Your task to perform on an android device: turn off data saver in the chrome app Image 0: 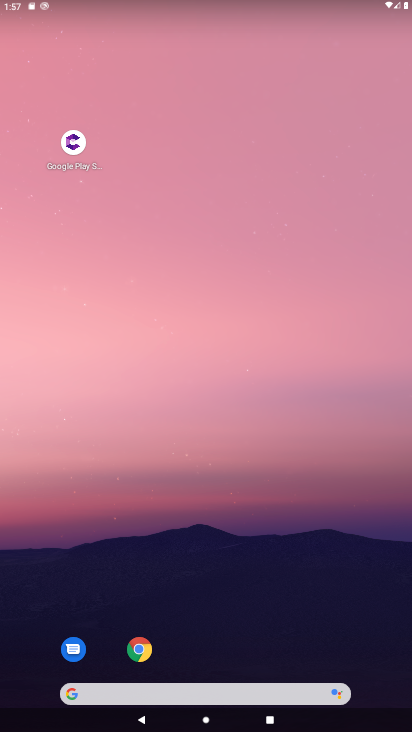
Step 0: drag from (301, 731) to (315, 63)
Your task to perform on an android device: turn off data saver in the chrome app Image 1: 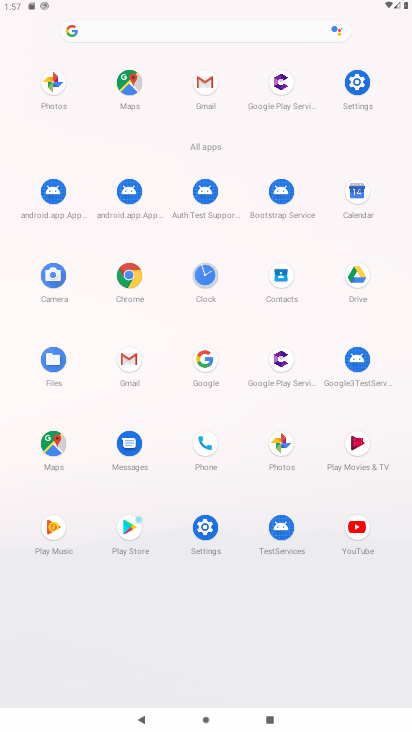
Step 1: click (141, 281)
Your task to perform on an android device: turn off data saver in the chrome app Image 2: 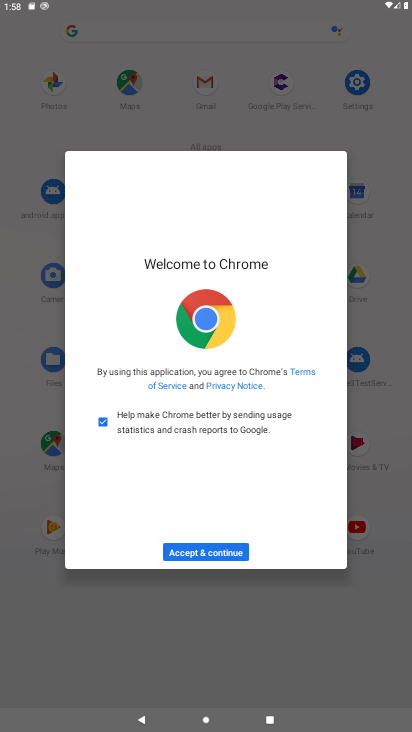
Step 2: click (240, 549)
Your task to perform on an android device: turn off data saver in the chrome app Image 3: 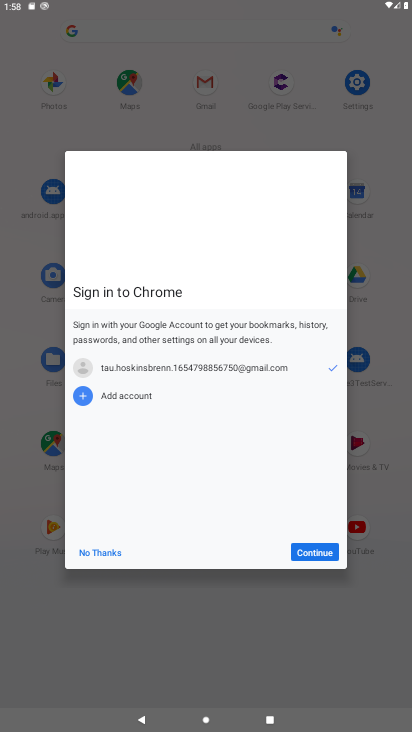
Step 3: click (312, 552)
Your task to perform on an android device: turn off data saver in the chrome app Image 4: 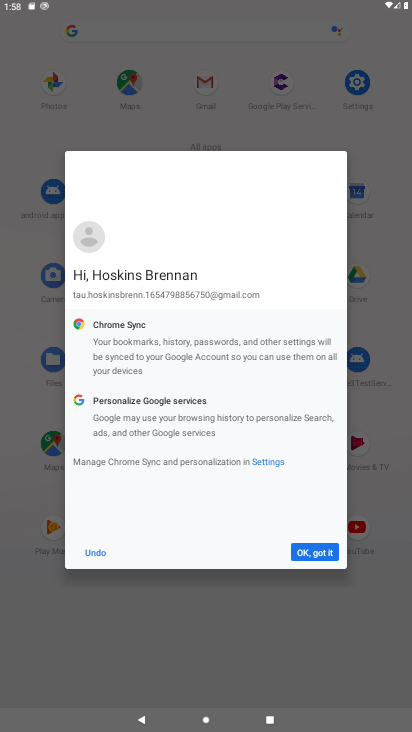
Step 4: click (312, 552)
Your task to perform on an android device: turn off data saver in the chrome app Image 5: 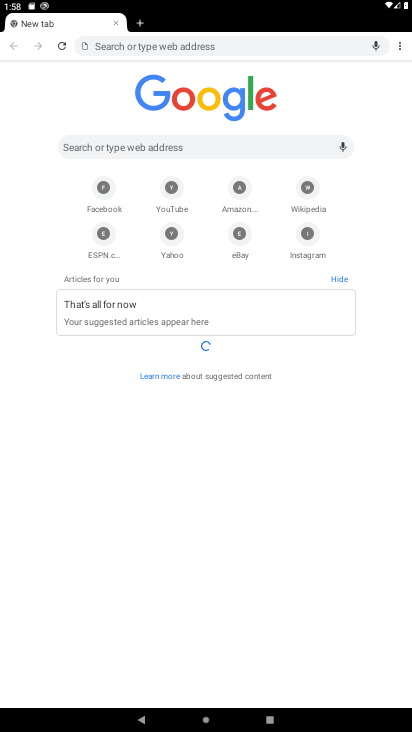
Step 5: drag from (400, 44) to (304, 216)
Your task to perform on an android device: turn off data saver in the chrome app Image 6: 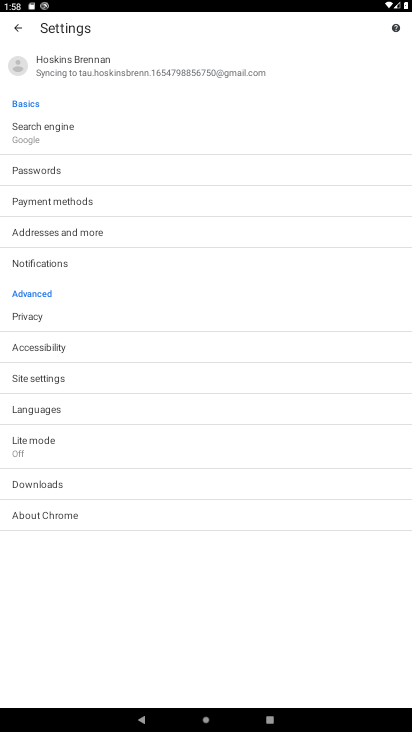
Step 6: click (13, 448)
Your task to perform on an android device: turn off data saver in the chrome app Image 7: 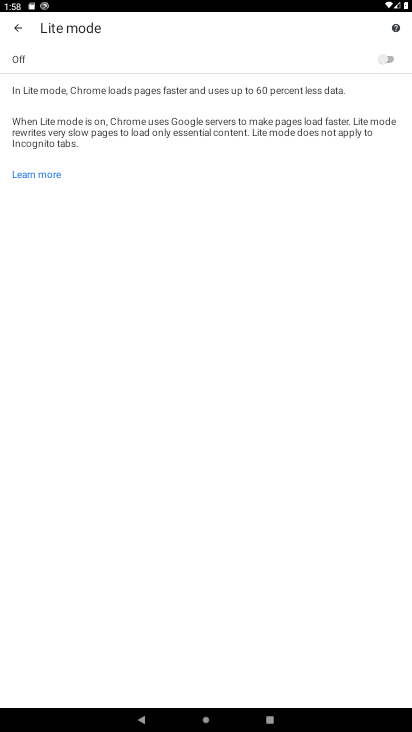
Step 7: task complete